Your task to perform on an android device: Open location settings Image 0: 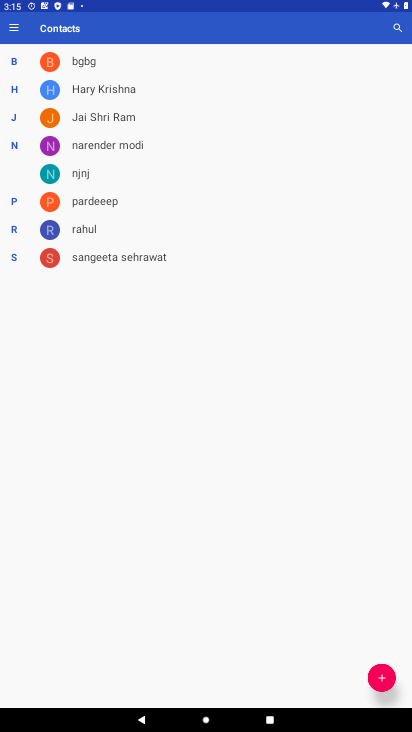
Step 0: press home button
Your task to perform on an android device: Open location settings Image 1: 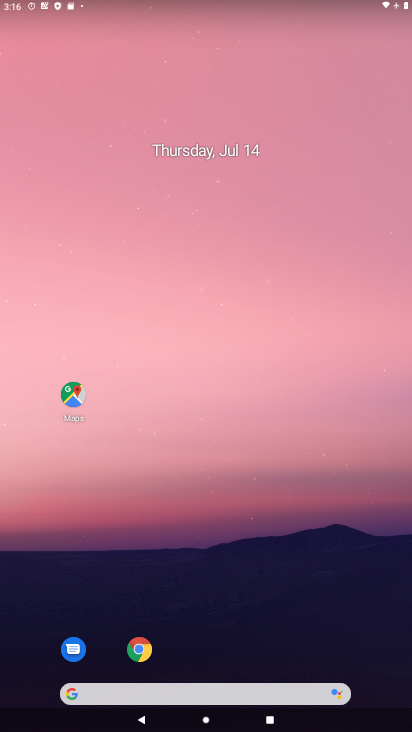
Step 1: drag from (220, 602) to (166, 6)
Your task to perform on an android device: Open location settings Image 2: 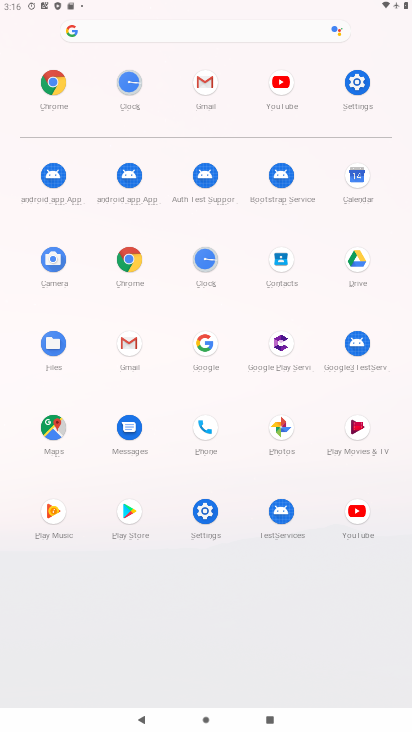
Step 2: click (199, 520)
Your task to perform on an android device: Open location settings Image 3: 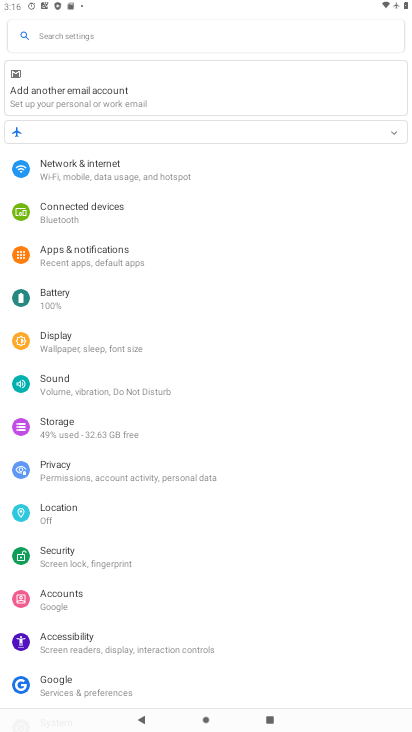
Step 3: click (68, 520)
Your task to perform on an android device: Open location settings Image 4: 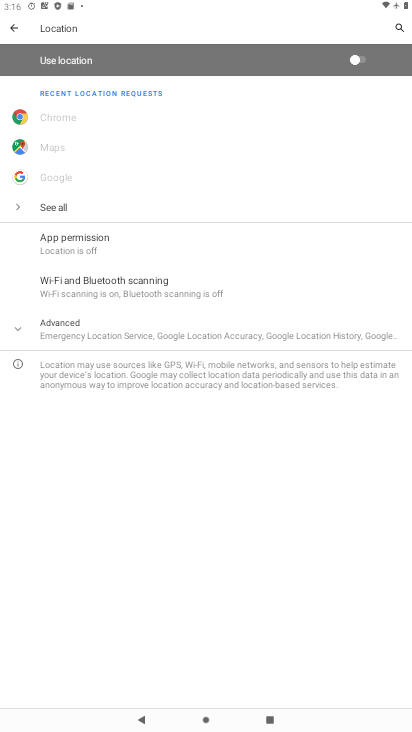
Step 4: task complete